Your task to perform on an android device: toggle pop-ups in chrome Image 0: 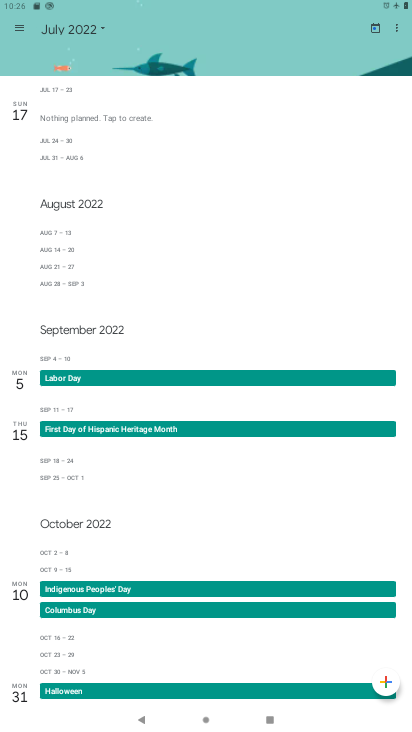
Step 0: press home button
Your task to perform on an android device: toggle pop-ups in chrome Image 1: 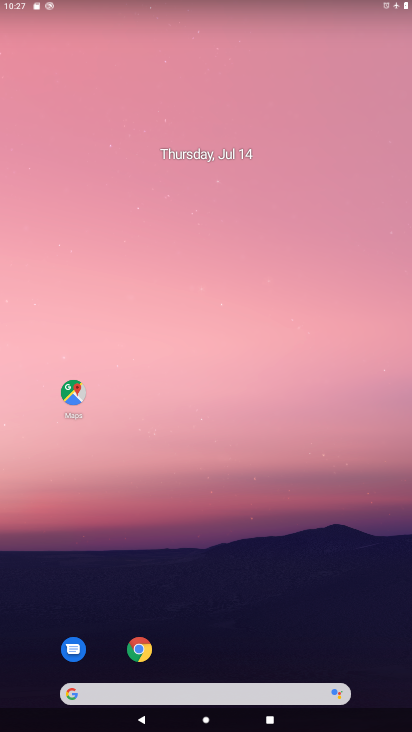
Step 1: click (135, 644)
Your task to perform on an android device: toggle pop-ups in chrome Image 2: 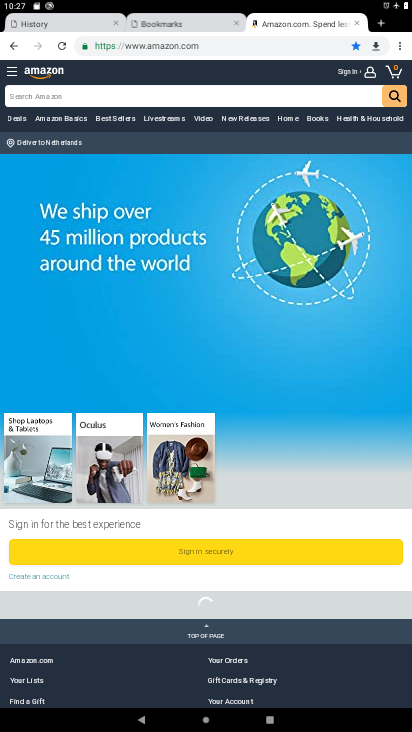
Step 2: click (402, 49)
Your task to perform on an android device: toggle pop-ups in chrome Image 3: 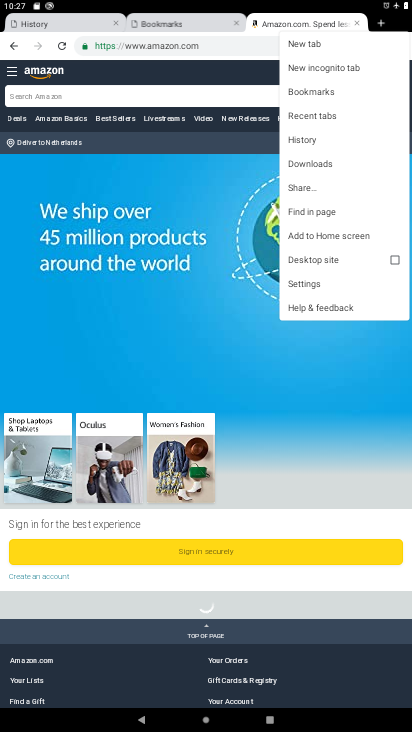
Step 3: click (302, 278)
Your task to perform on an android device: toggle pop-ups in chrome Image 4: 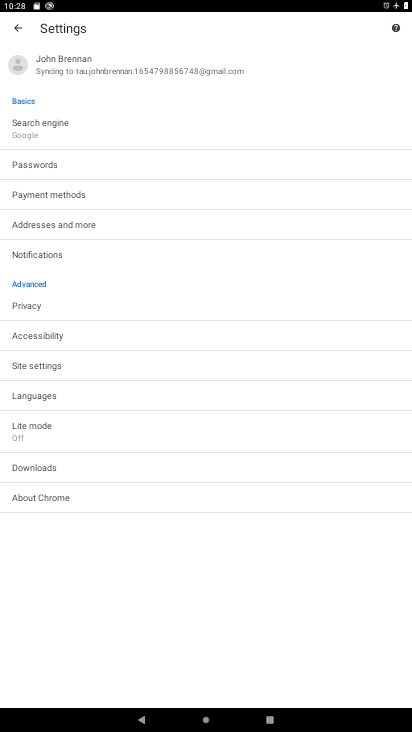
Step 4: click (55, 366)
Your task to perform on an android device: toggle pop-ups in chrome Image 5: 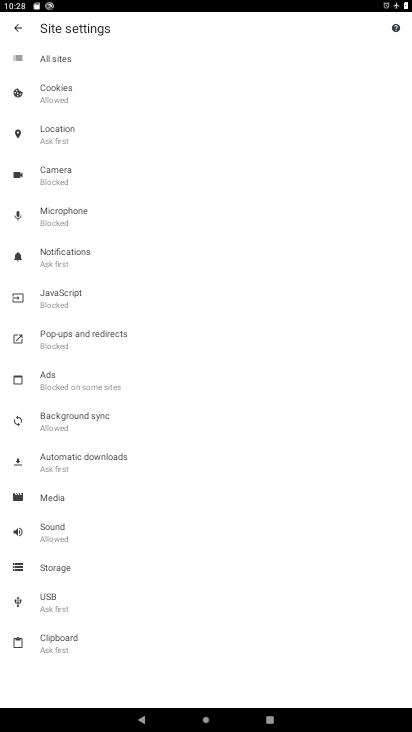
Step 5: click (90, 337)
Your task to perform on an android device: toggle pop-ups in chrome Image 6: 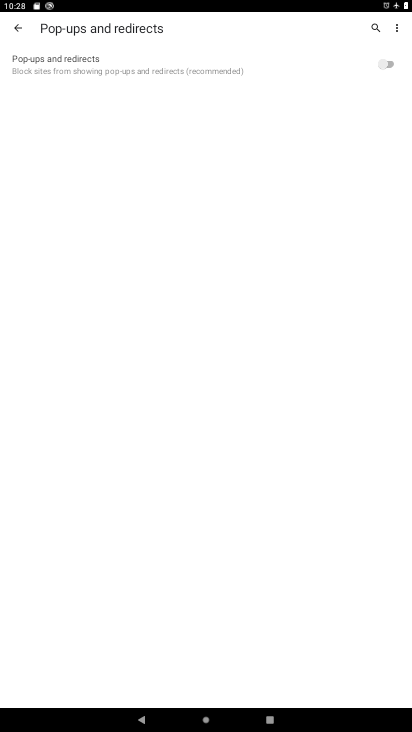
Step 6: click (394, 52)
Your task to perform on an android device: toggle pop-ups in chrome Image 7: 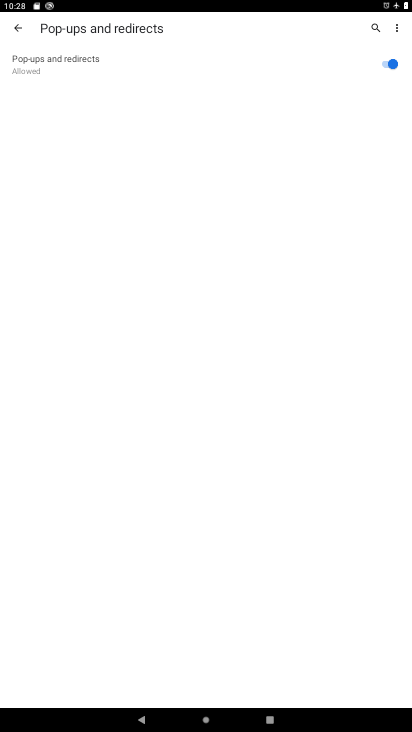
Step 7: task complete